Your task to perform on an android device: toggle notifications settings in the gmail app Image 0: 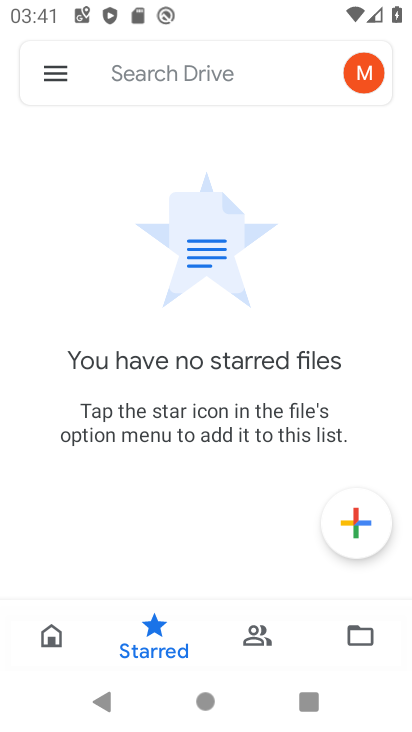
Step 0: press home button
Your task to perform on an android device: toggle notifications settings in the gmail app Image 1: 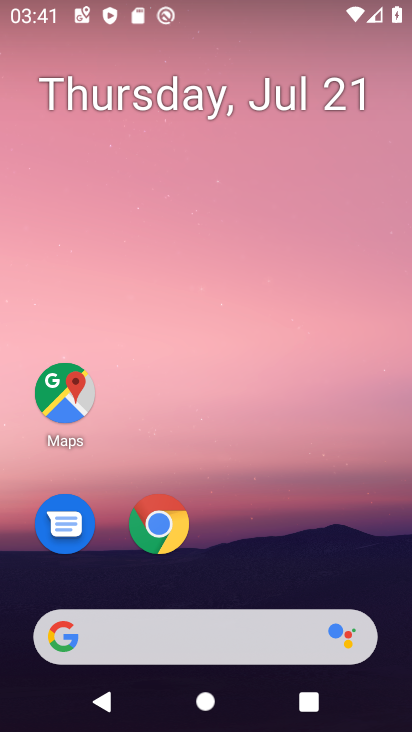
Step 1: drag from (267, 567) to (274, 123)
Your task to perform on an android device: toggle notifications settings in the gmail app Image 2: 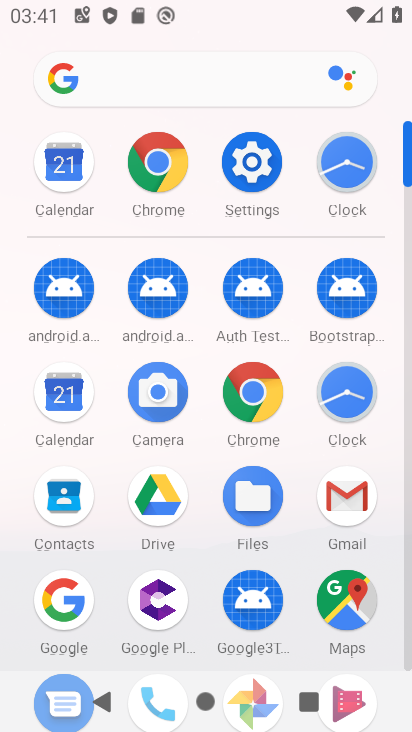
Step 2: click (351, 494)
Your task to perform on an android device: toggle notifications settings in the gmail app Image 3: 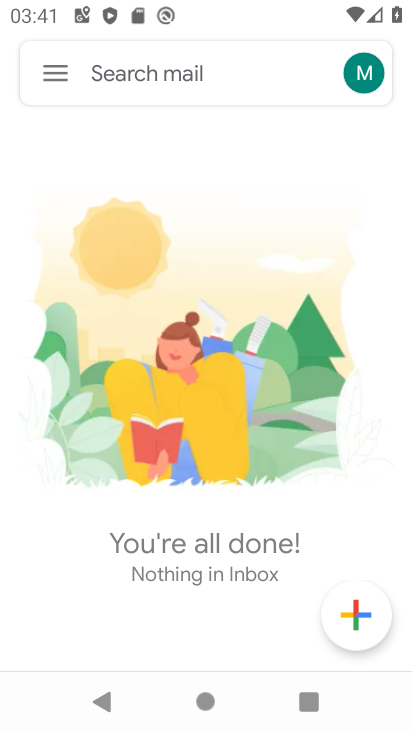
Step 3: click (58, 61)
Your task to perform on an android device: toggle notifications settings in the gmail app Image 4: 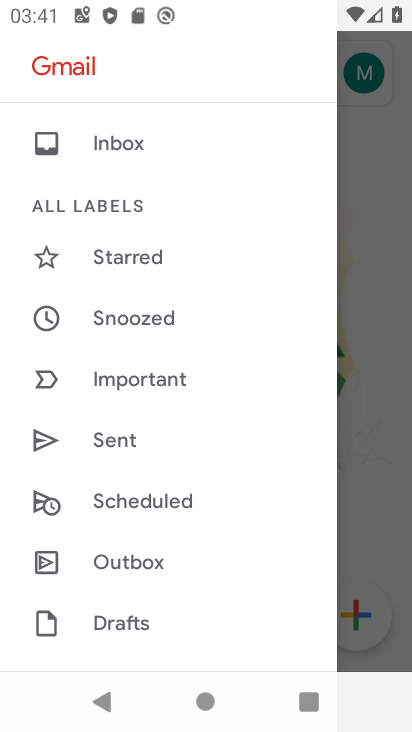
Step 4: drag from (190, 572) to (207, 111)
Your task to perform on an android device: toggle notifications settings in the gmail app Image 5: 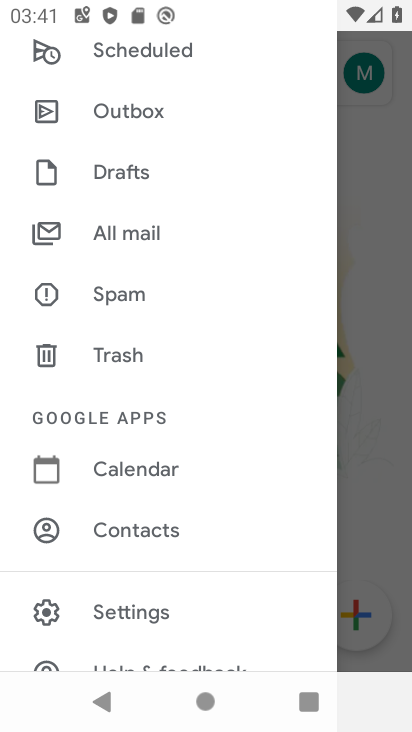
Step 5: click (139, 607)
Your task to perform on an android device: toggle notifications settings in the gmail app Image 6: 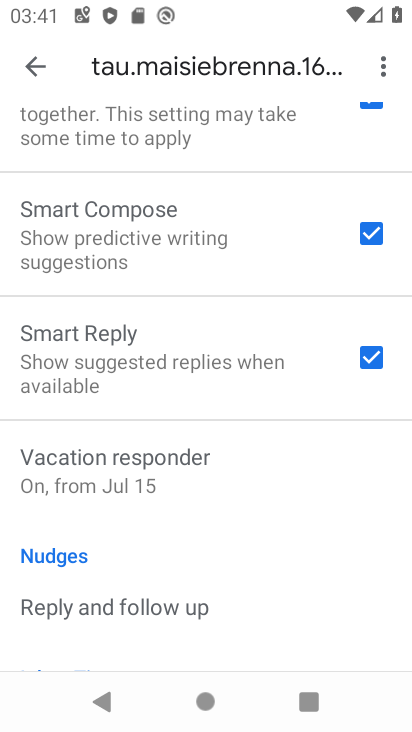
Step 6: drag from (221, 194) to (259, 612)
Your task to perform on an android device: toggle notifications settings in the gmail app Image 7: 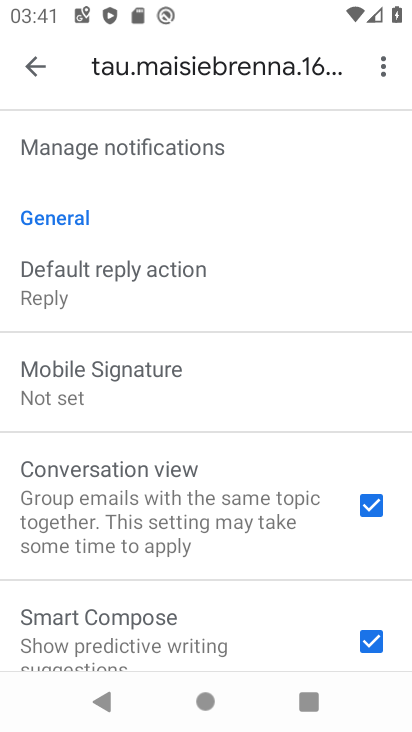
Step 7: drag from (261, 217) to (268, 594)
Your task to perform on an android device: toggle notifications settings in the gmail app Image 8: 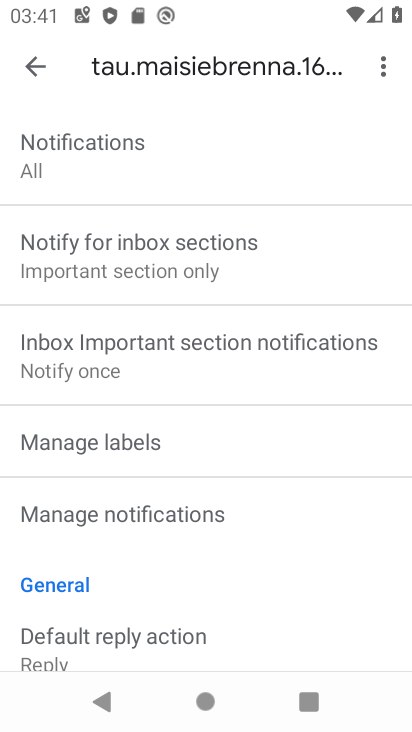
Step 8: drag from (211, 175) to (220, 455)
Your task to perform on an android device: toggle notifications settings in the gmail app Image 9: 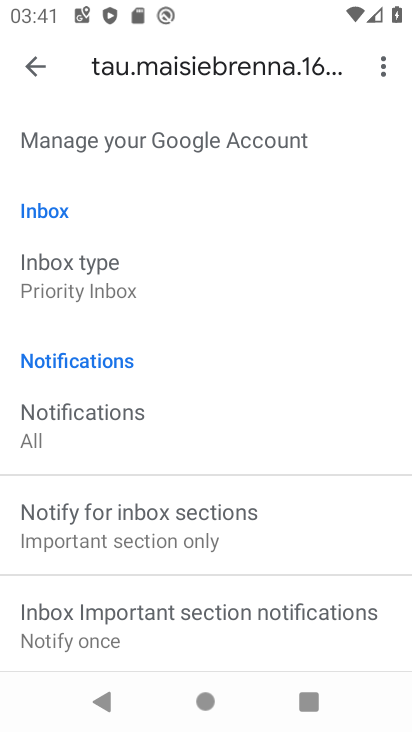
Step 9: drag from (226, 420) to (252, 106)
Your task to perform on an android device: toggle notifications settings in the gmail app Image 10: 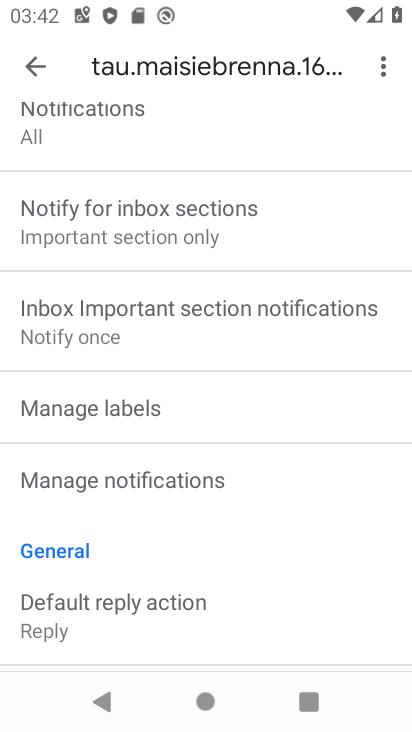
Step 10: click (225, 482)
Your task to perform on an android device: toggle notifications settings in the gmail app Image 11: 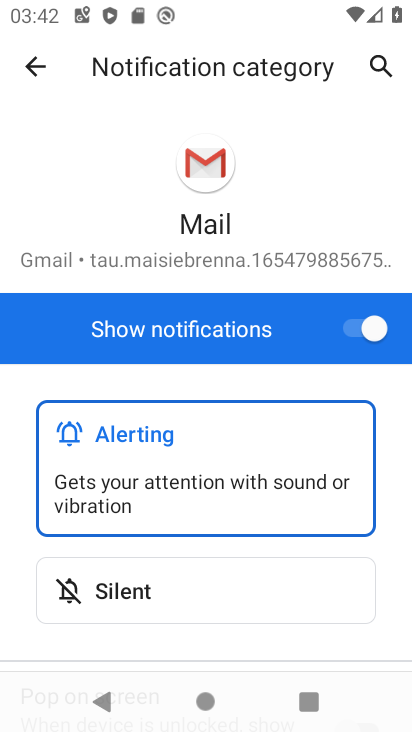
Step 11: click (375, 332)
Your task to perform on an android device: toggle notifications settings in the gmail app Image 12: 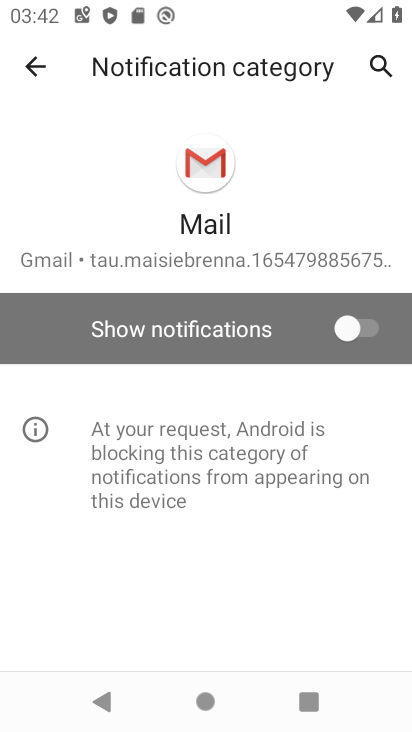
Step 12: task complete